Your task to perform on an android device: Search for seafood restaurants on Google Maps Image 0: 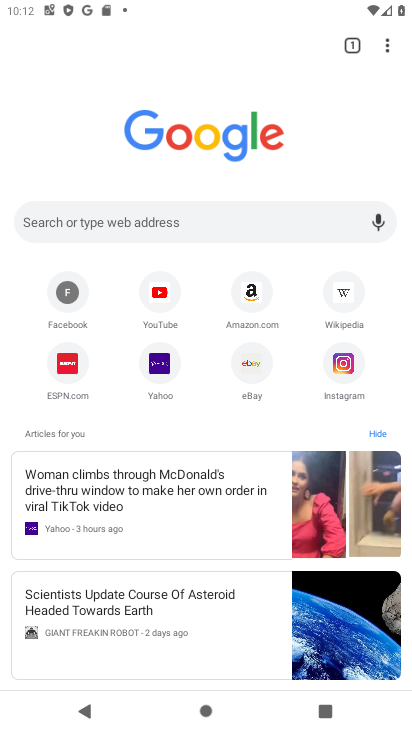
Step 0: press home button
Your task to perform on an android device: Search for seafood restaurants on Google Maps Image 1: 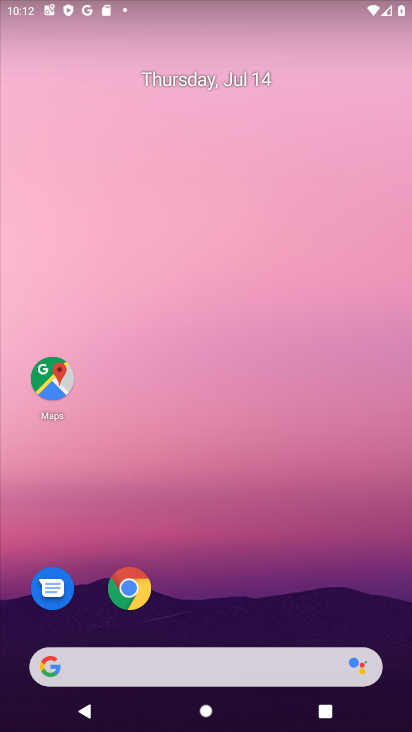
Step 1: click (60, 377)
Your task to perform on an android device: Search for seafood restaurants on Google Maps Image 2: 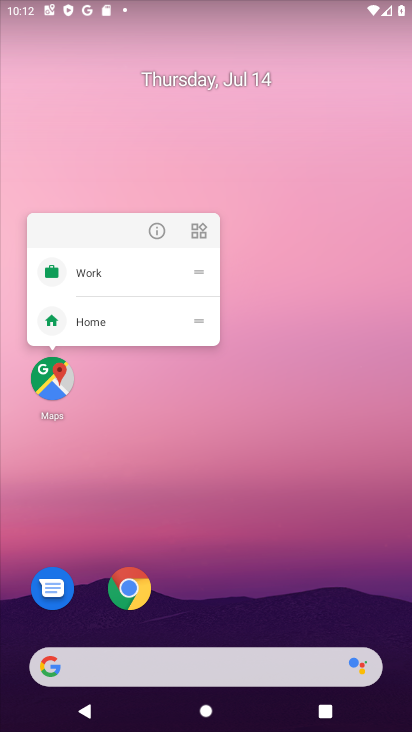
Step 2: click (54, 382)
Your task to perform on an android device: Search for seafood restaurants on Google Maps Image 3: 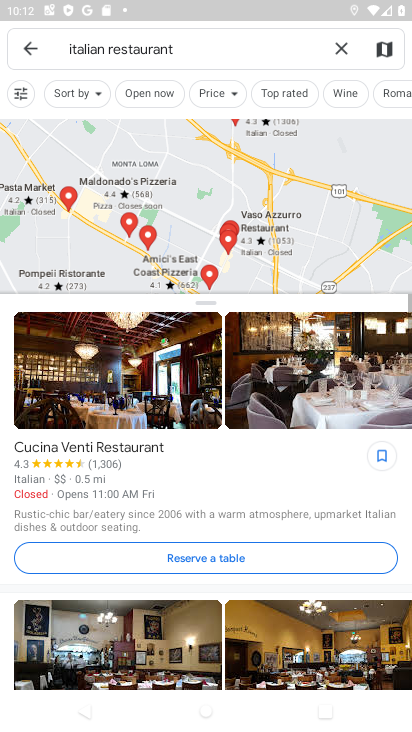
Step 3: click (342, 49)
Your task to perform on an android device: Search for seafood restaurants on Google Maps Image 4: 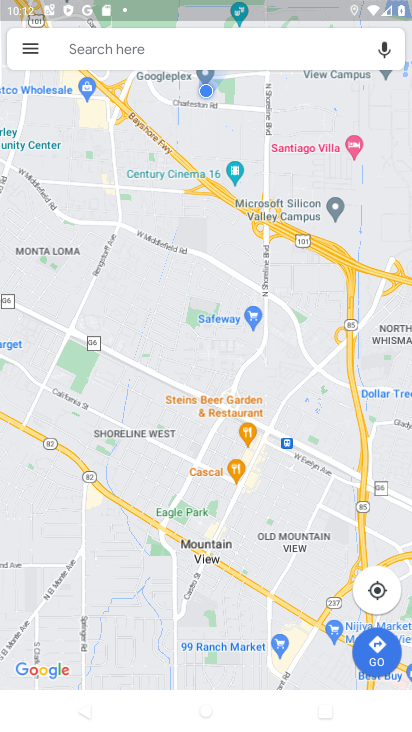
Step 4: click (186, 54)
Your task to perform on an android device: Search for seafood restaurants on Google Maps Image 5: 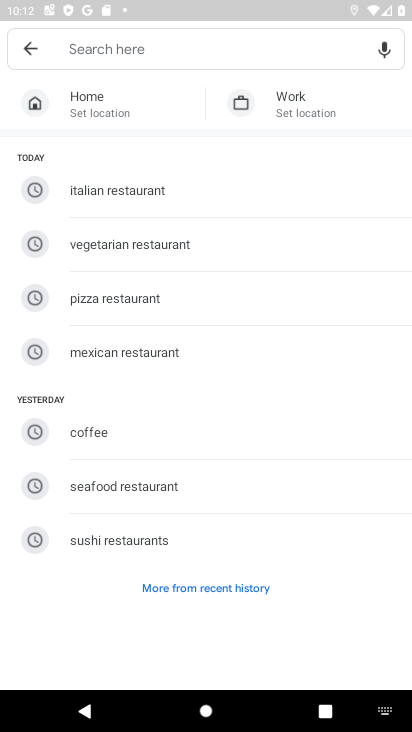
Step 5: click (138, 482)
Your task to perform on an android device: Search for seafood restaurants on Google Maps Image 6: 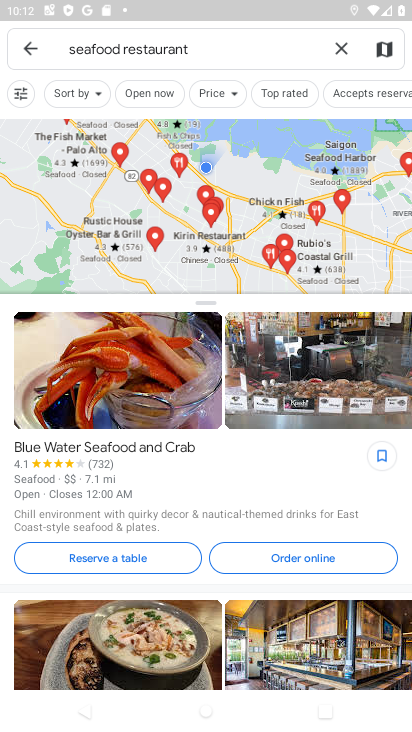
Step 6: task complete